Your task to perform on an android device: show emergency info Image 0: 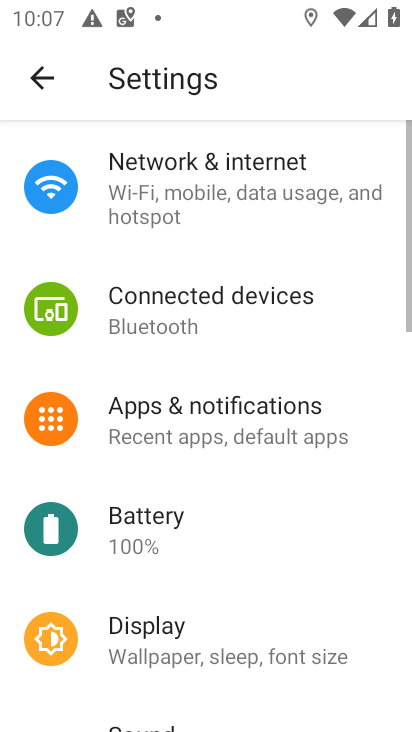
Step 0: press home button
Your task to perform on an android device: show emergency info Image 1: 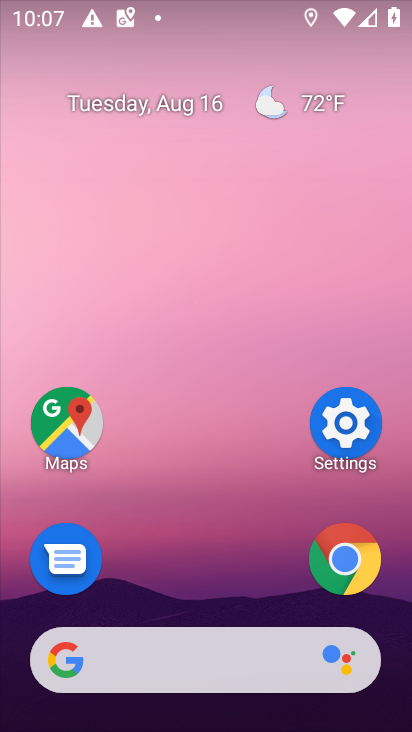
Step 1: click (338, 432)
Your task to perform on an android device: show emergency info Image 2: 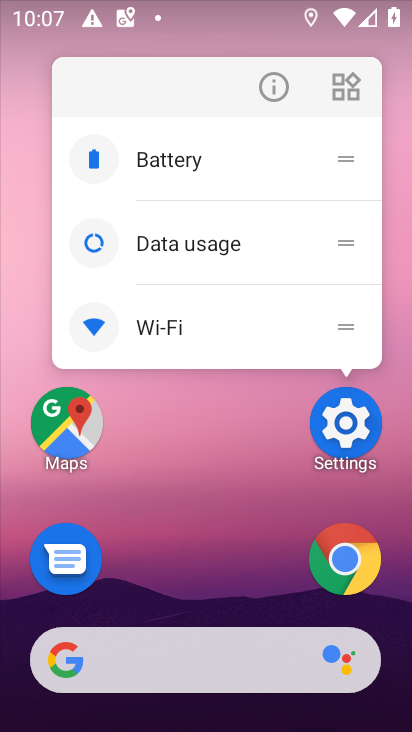
Step 2: click (350, 427)
Your task to perform on an android device: show emergency info Image 3: 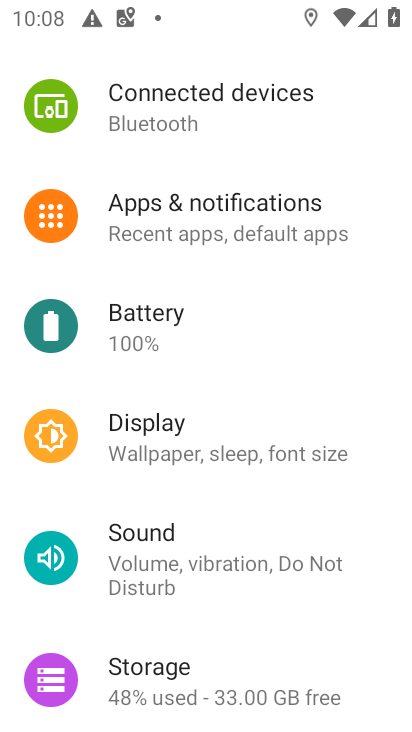
Step 3: drag from (240, 681) to (311, 61)
Your task to perform on an android device: show emergency info Image 4: 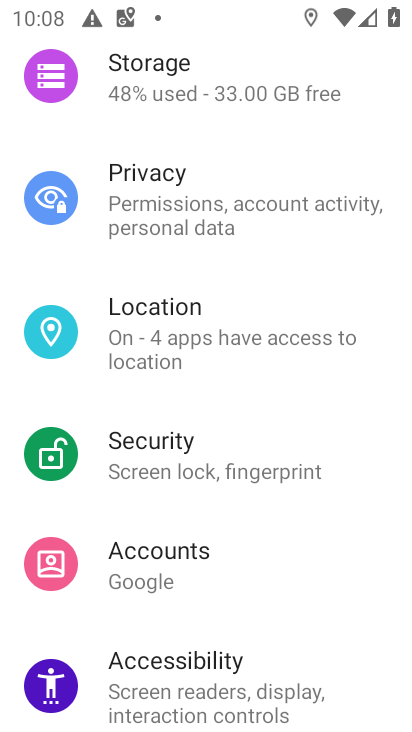
Step 4: drag from (253, 600) to (309, 3)
Your task to perform on an android device: show emergency info Image 5: 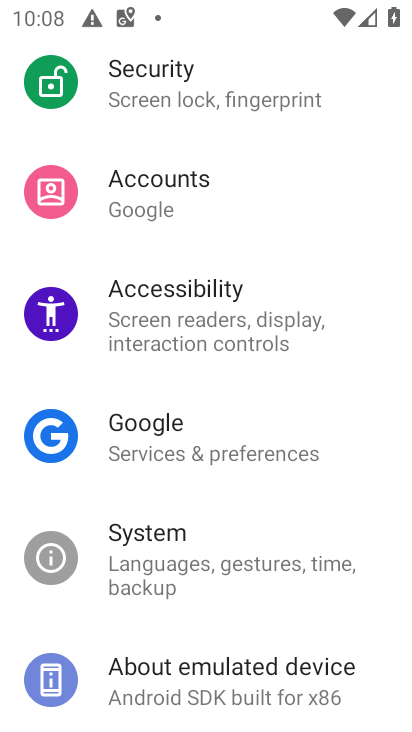
Step 5: click (237, 673)
Your task to perform on an android device: show emergency info Image 6: 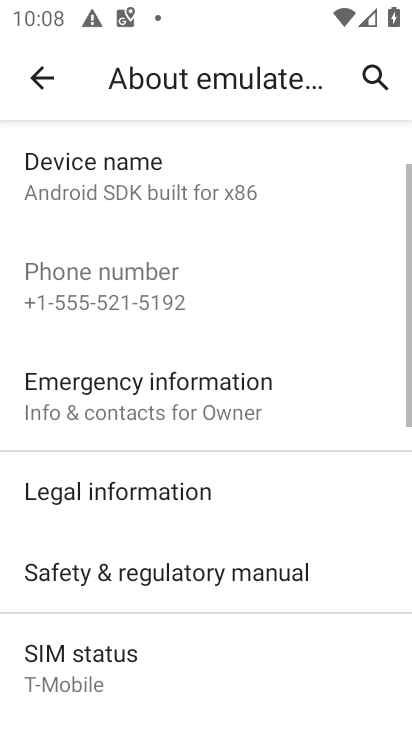
Step 6: click (179, 399)
Your task to perform on an android device: show emergency info Image 7: 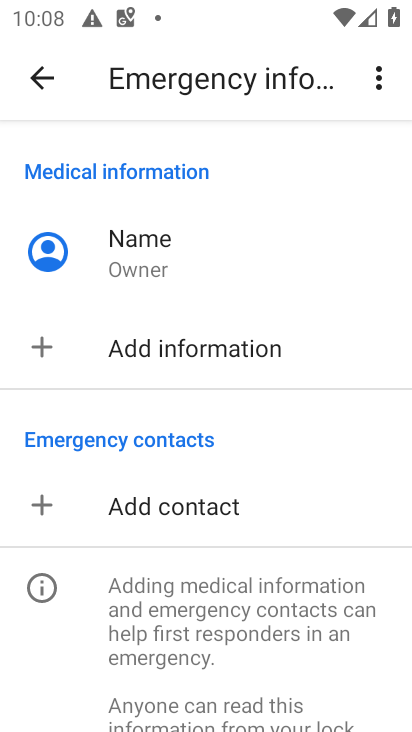
Step 7: task complete